Your task to perform on an android device: manage bookmarks in the chrome app Image 0: 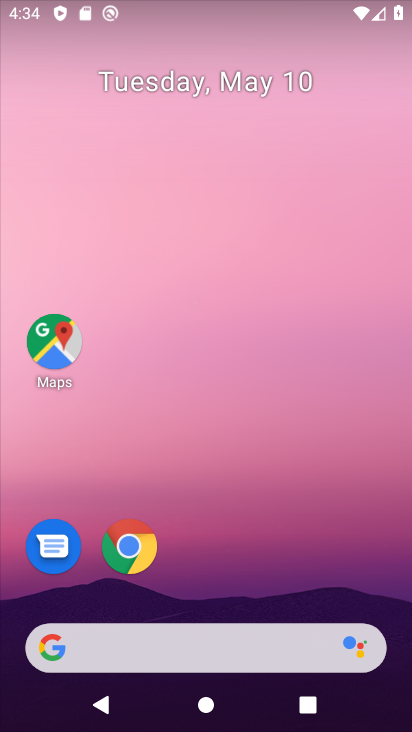
Step 0: click (126, 552)
Your task to perform on an android device: manage bookmarks in the chrome app Image 1: 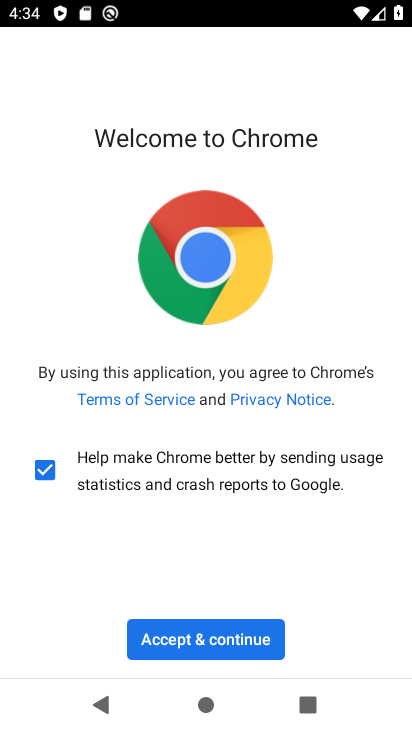
Step 1: click (260, 632)
Your task to perform on an android device: manage bookmarks in the chrome app Image 2: 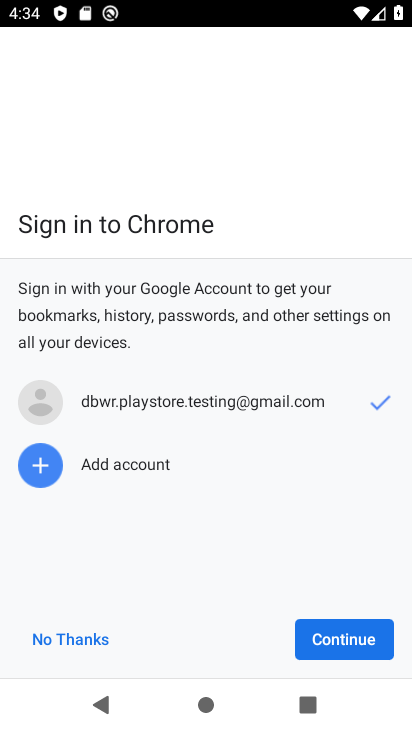
Step 2: click (356, 632)
Your task to perform on an android device: manage bookmarks in the chrome app Image 3: 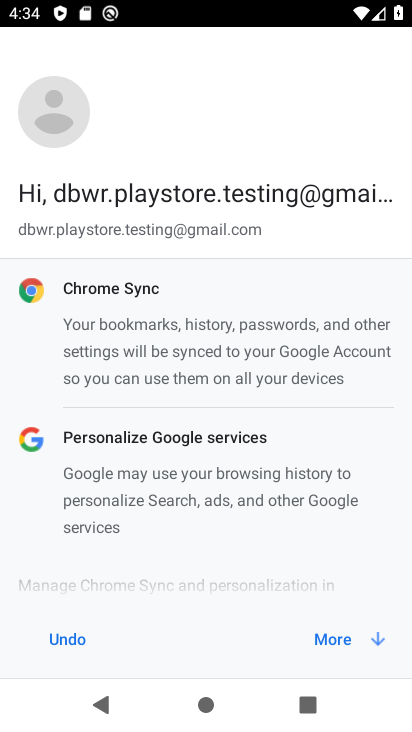
Step 3: click (364, 631)
Your task to perform on an android device: manage bookmarks in the chrome app Image 4: 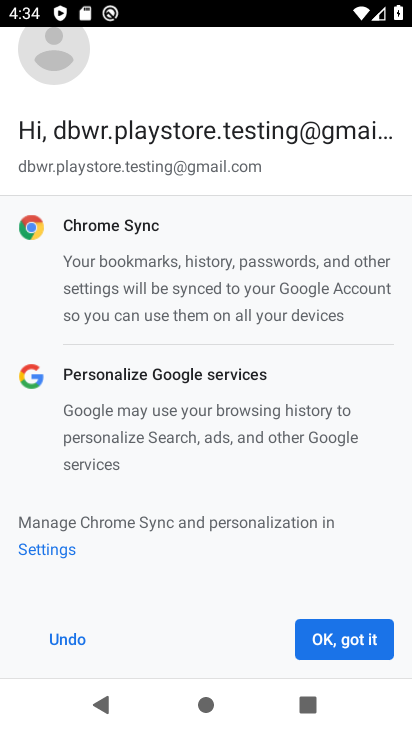
Step 4: click (366, 649)
Your task to perform on an android device: manage bookmarks in the chrome app Image 5: 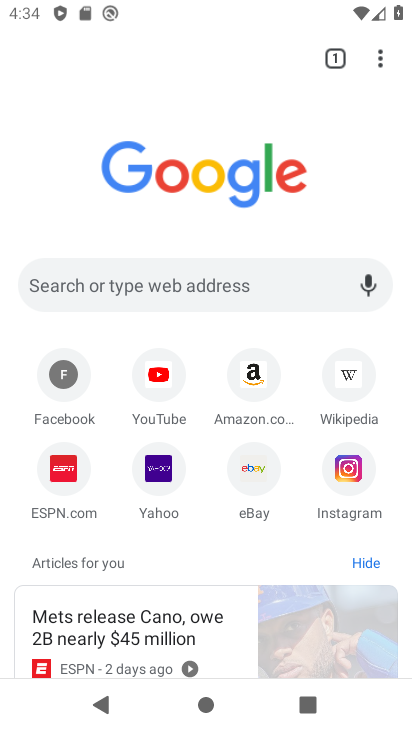
Step 5: click (377, 69)
Your task to perform on an android device: manage bookmarks in the chrome app Image 6: 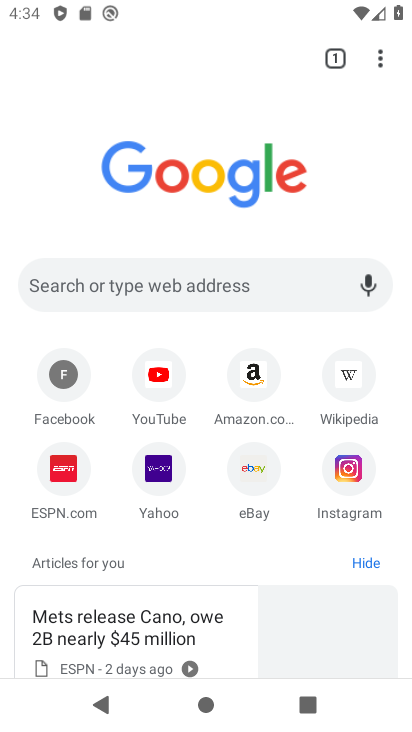
Step 6: task complete